Your task to perform on an android device: allow notifications from all sites in the chrome app Image 0: 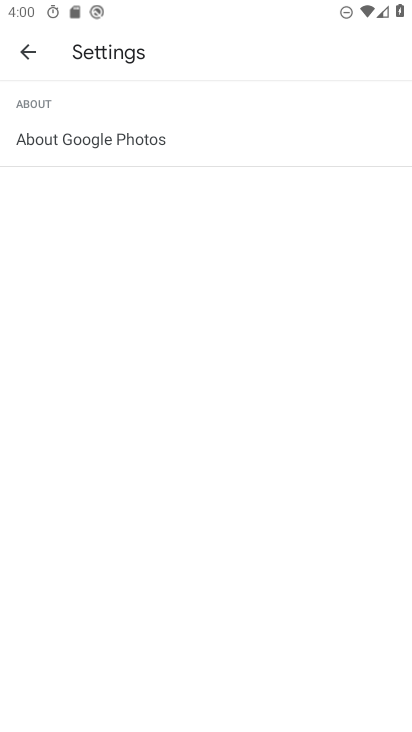
Step 0: press home button
Your task to perform on an android device: allow notifications from all sites in the chrome app Image 1: 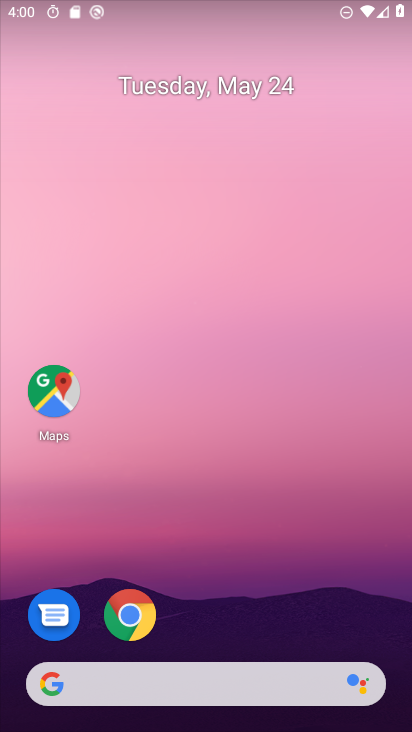
Step 1: drag from (249, 624) to (249, 20)
Your task to perform on an android device: allow notifications from all sites in the chrome app Image 2: 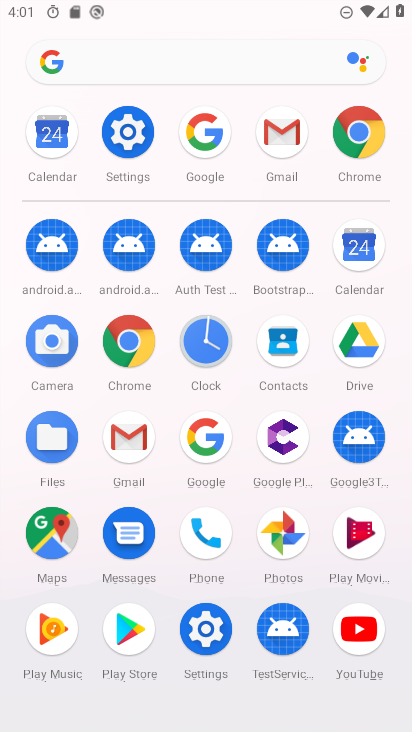
Step 2: click (364, 138)
Your task to perform on an android device: allow notifications from all sites in the chrome app Image 3: 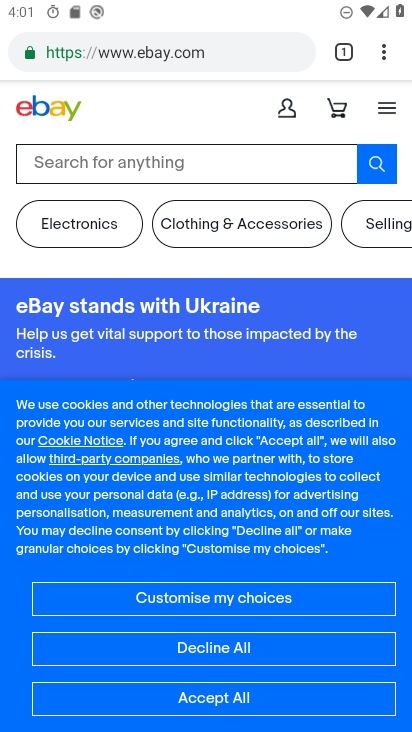
Step 3: click (382, 52)
Your task to perform on an android device: allow notifications from all sites in the chrome app Image 4: 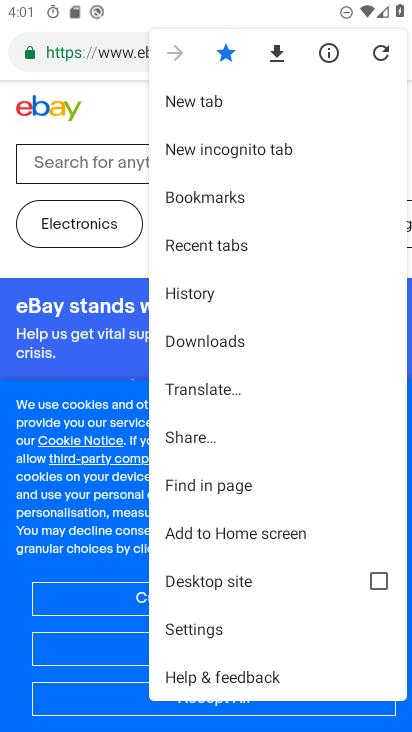
Step 4: click (216, 627)
Your task to perform on an android device: allow notifications from all sites in the chrome app Image 5: 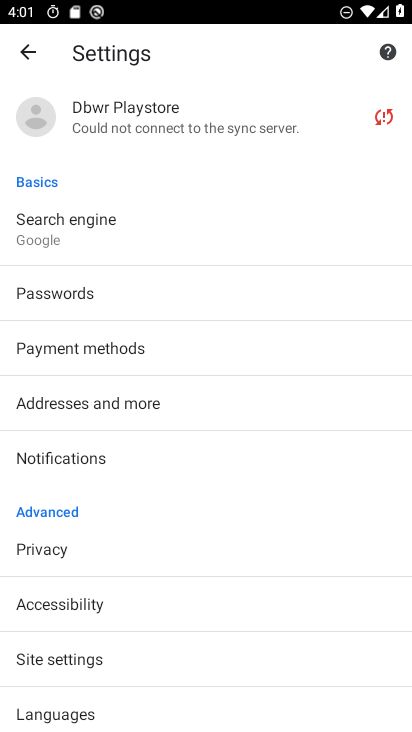
Step 5: click (103, 459)
Your task to perform on an android device: allow notifications from all sites in the chrome app Image 6: 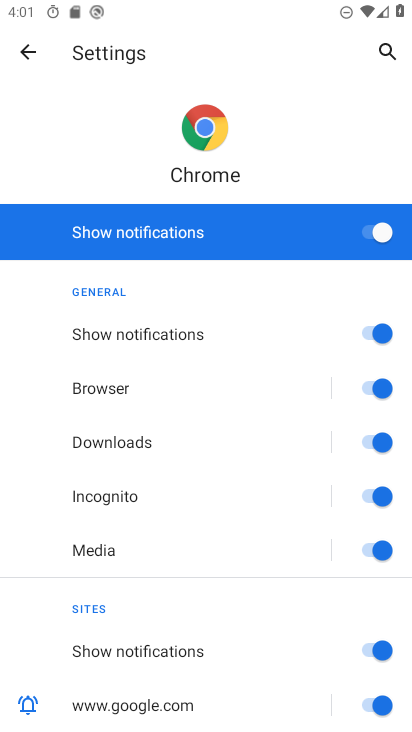
Step 6: task complete